Your task to perform on an android device: allow cookies in the chrome app Image 0: 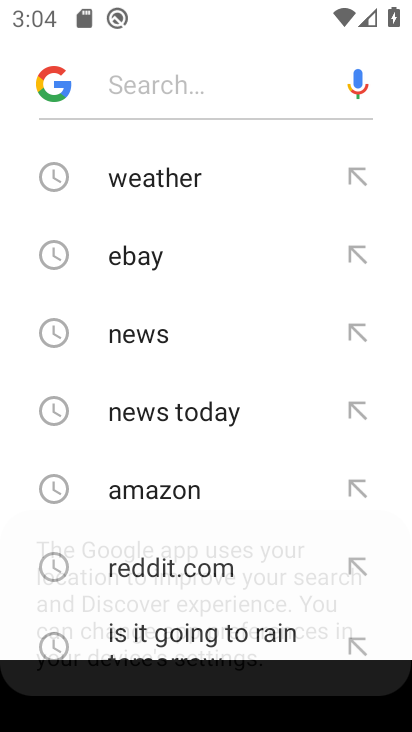
Step 0: press home button
Your task to perform on an android device: allow cookies in the chrome app Image 1: 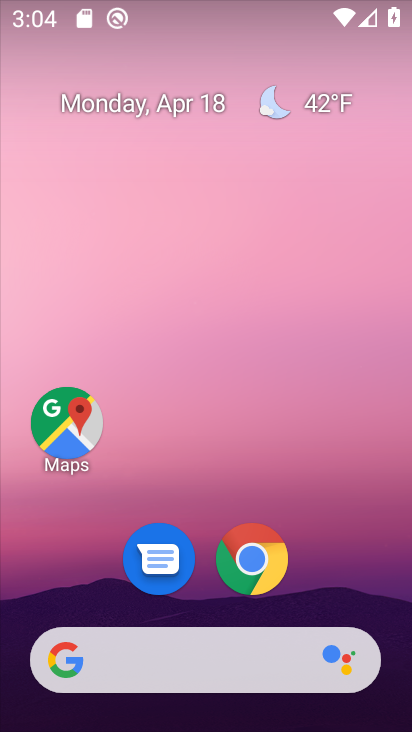
Step 1: click (251, 568)
Your task to perform on an android device: allow cookies in the chrome app Image 2: 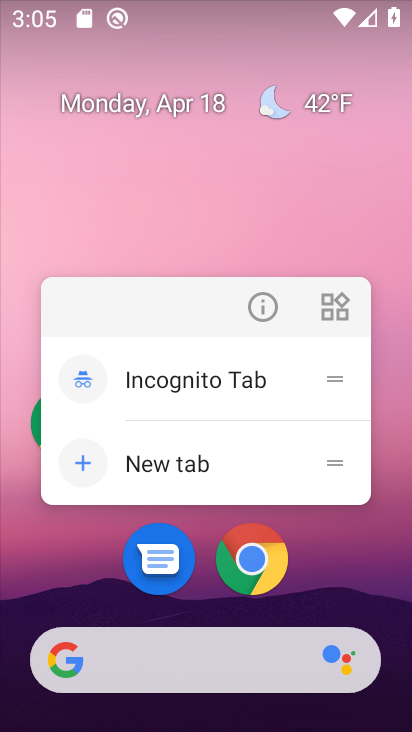
Step 2: click (243, 558)
Your task to perform on an android device: allow cookies in the chrome app Image 3: 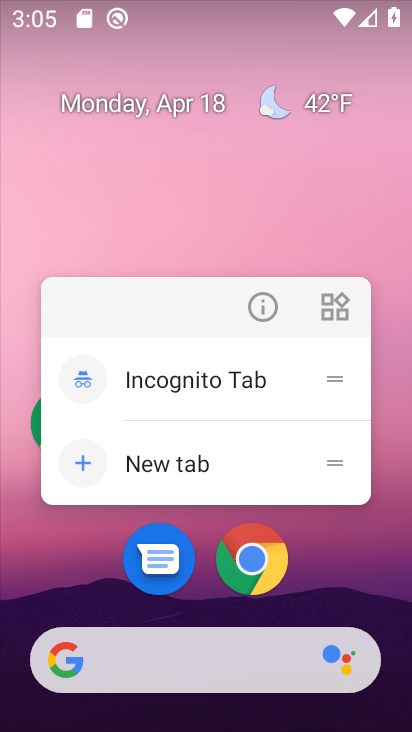
Step 3: drag from (329, 593) to (347, 90)
Your task to perform on an android device: allow cookies in the chrome app Image 4: 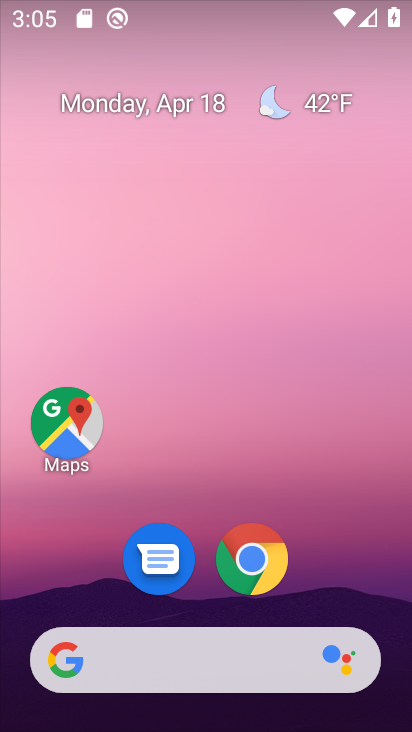
Step 4: drag from (201, 507) to (265, 133)
Your task to perform on an android device: allow cookies in the chrome app Image 5: 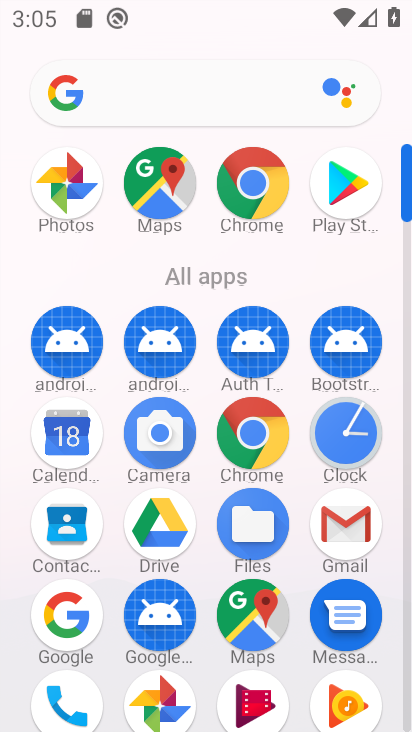
Step 5: click (261, 181)
Your task to perform on an android device: allow cookies in the chrome app Image 6: 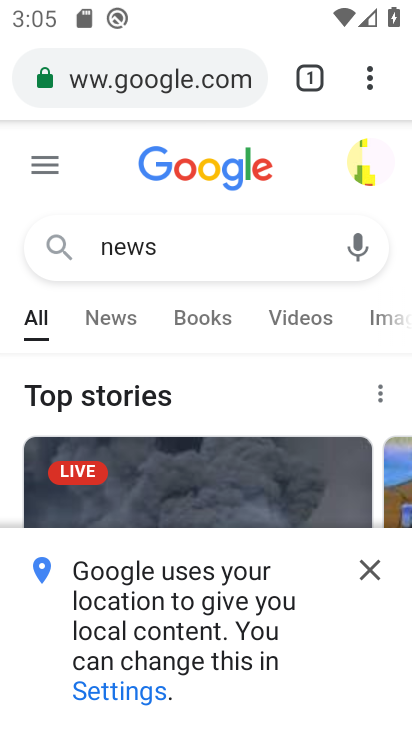
Step 6: click (374, 78)
Your task to perform on an android device: allow cookies in the chrome app Image 7: 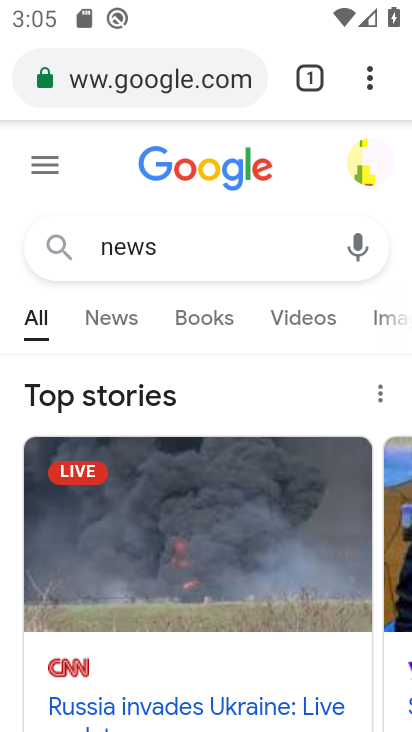
Step 7: click (370, 72)
Your task to perform on an android device: allow cookies in the chrome app Image 8: 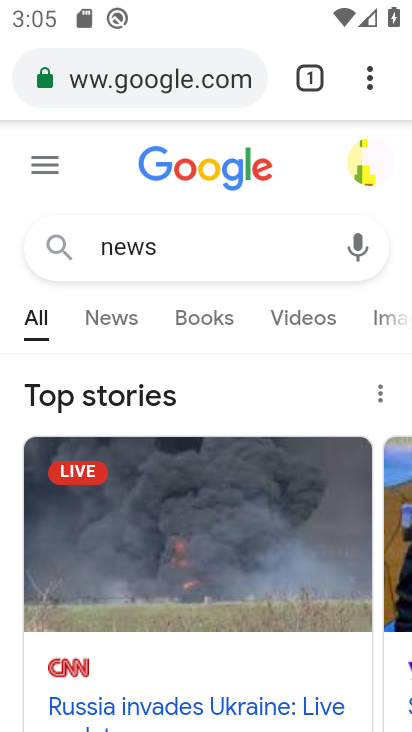
Step 8: click (366, 75)
Your task to perform on an android device: allow cookies in the chrome app Image 9: 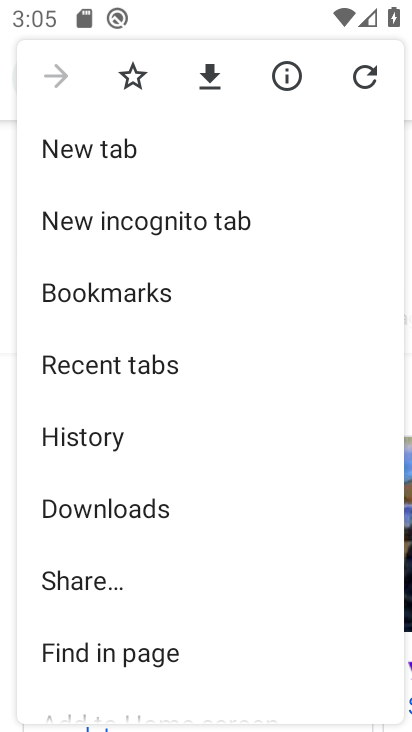
Step 9: click (109, 426)
Your task to perform on an android device: allow cookies in the chrome app Image 10: 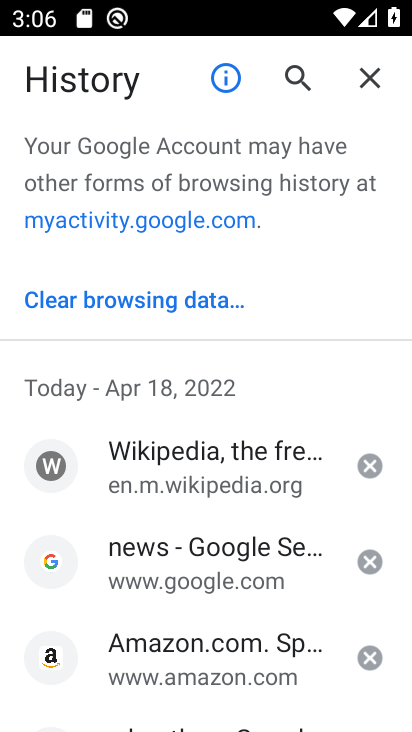
Step 10: click (126, 303)
Your task to perform on an android device: allow cookies in the chrome app Image 11: 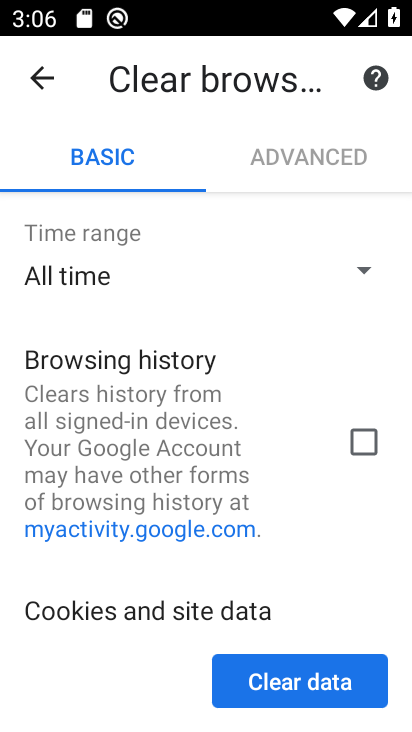
Step 11: click (265, 161)
Your task to perform on an android device: allow cookies in the chrome app Image 12: 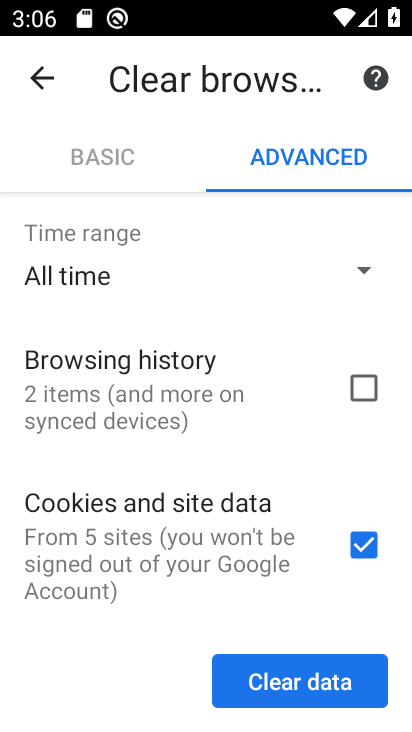
Step 12: click (319, 670)
Your task to perform on an android device: allow cookies in the chrome app Image 13: 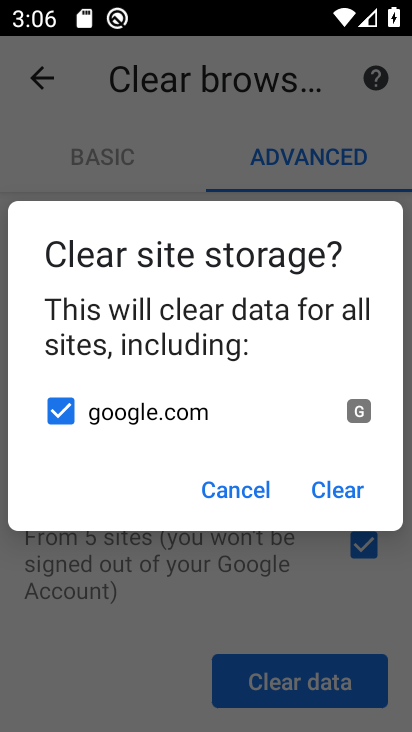
Step 13: click (322, 492)
Your task to perform on an android device: allow cookies in the chrome app Image 14: 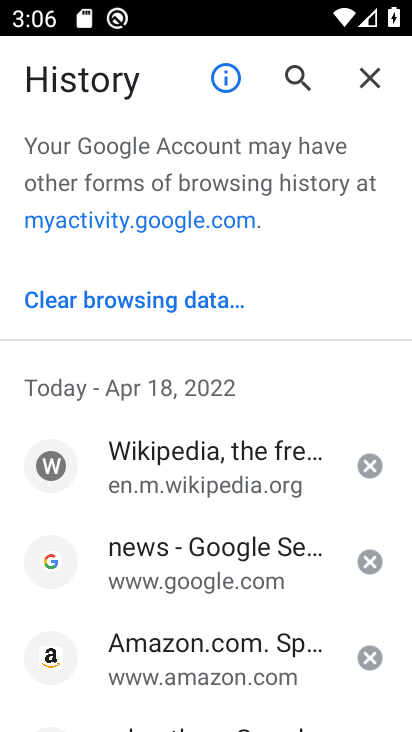
Step 14: task complete